Your task to perform on an android device: Toggle the flashlight Image 0: 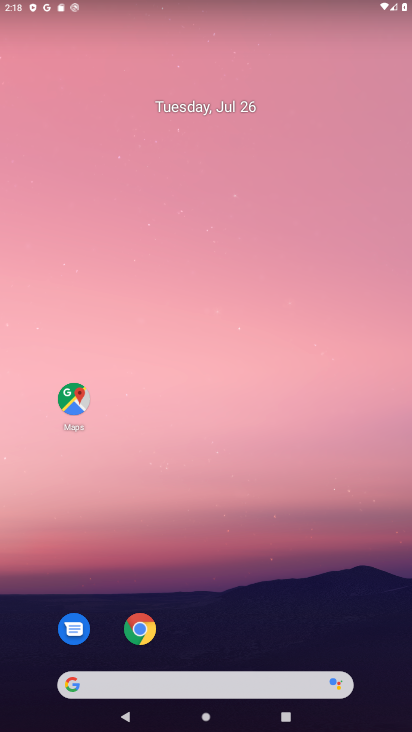
Step 0: drag from (315, 6) to (328, 340)
Your task to perform on an android device: Toggle the flashlight Image 1: 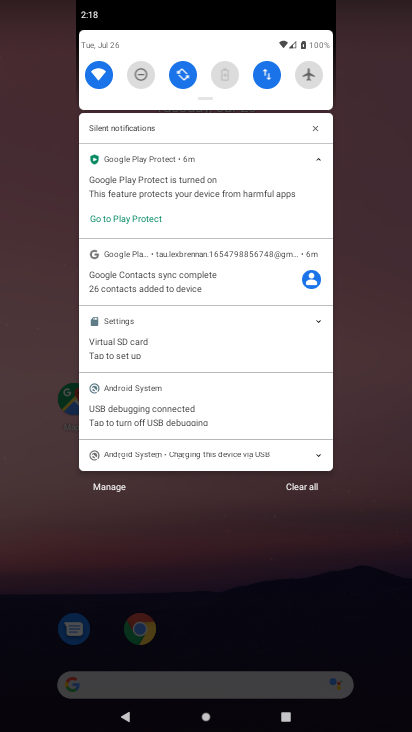
Step 1: drag from (202, 87) to (239, 450)
Your task to perform on an android device: Toggle the flashlight Image 2: 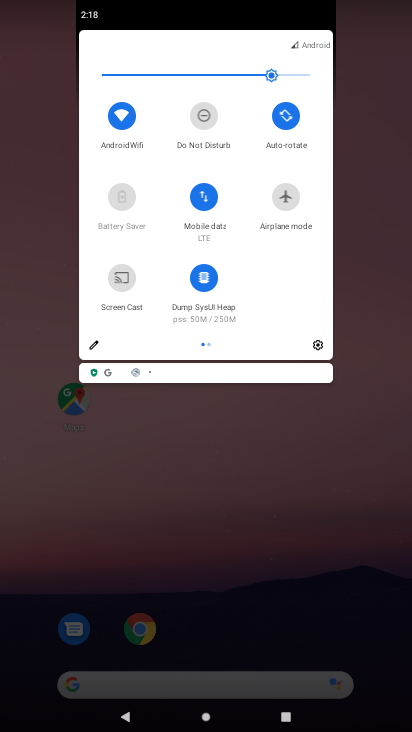
Step 2: click (101, 346)
Your task to perform on an android device: Toggle the flashlight Image 3: 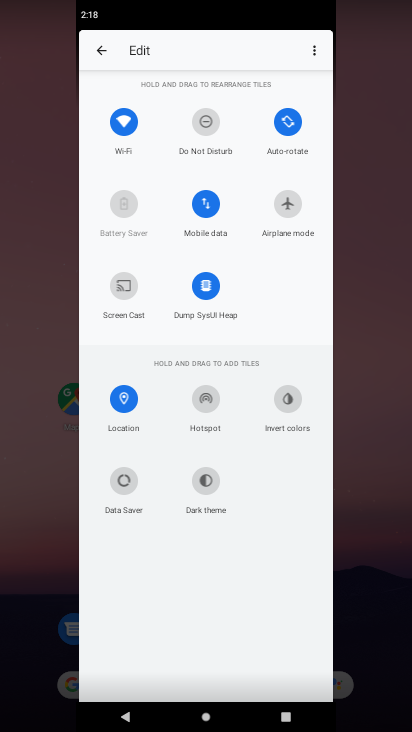
Step 3: task complete